Your task to perform on an android device: Do I have any events tomorrow? Image 0: 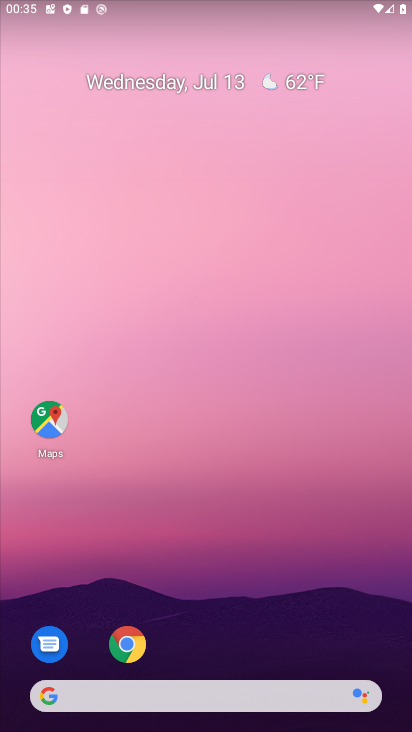
Step 0: drag from (235, 673) to (102, 215)
Your task to perform on an android device: Do I have any events tomorrow? Image 1: 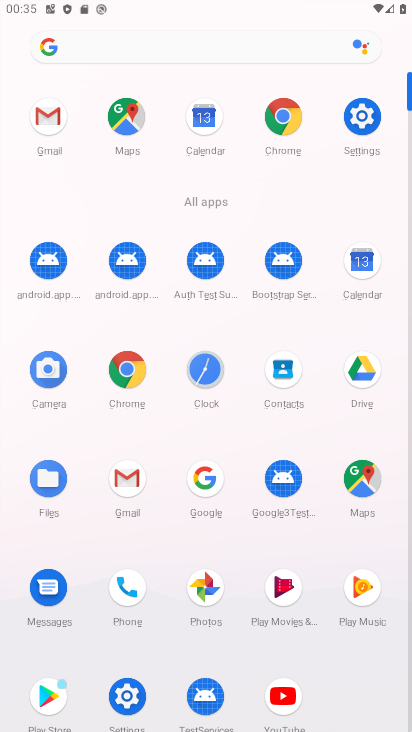
Step 1: click (364, 264)
Your task to perform on an android device: Do I have any events tomorrow? Image 2: 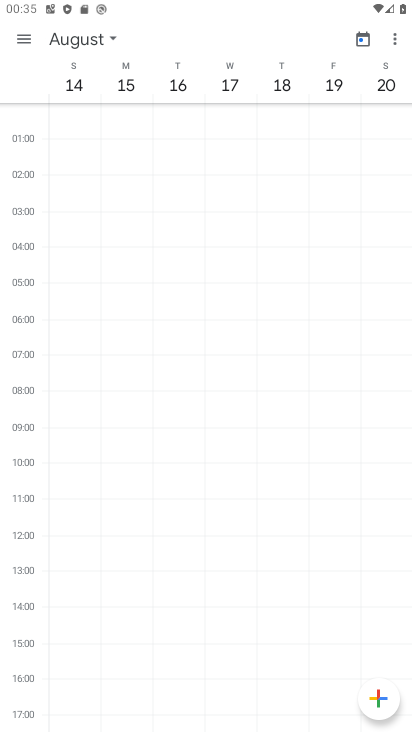
Step 2: click (362, 31)
Your task to perform on an android device: Do I have any events tomorrow? Image 3: 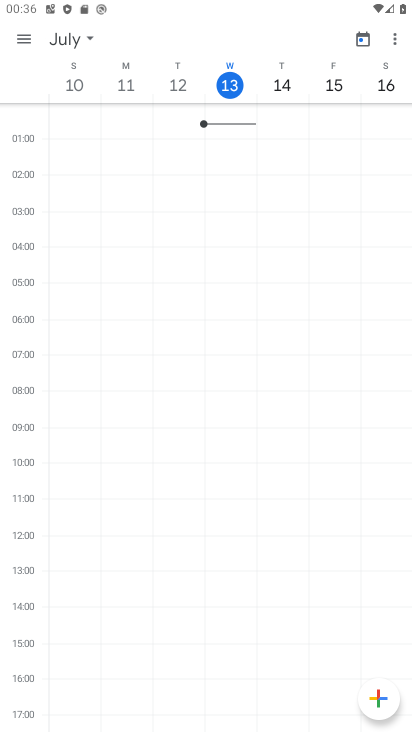
Step 3: click (279, 79)
Your task to perform on an android device: Do I have any events tomorrow? Image 4: 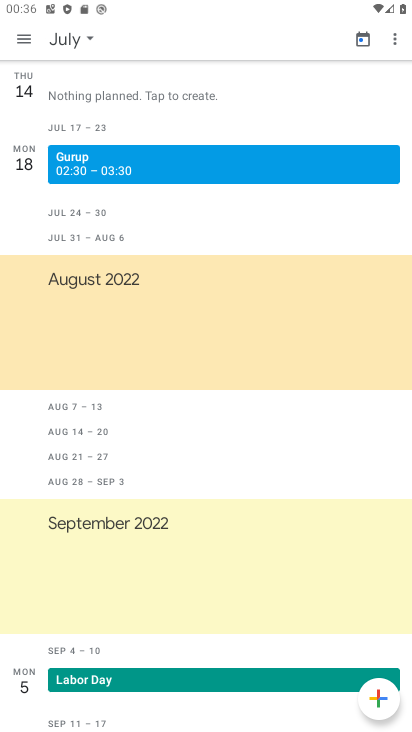
Step 4: click (364, 41)
Your task to perform on an android device: Do I have any events tomorrow? Image 5: 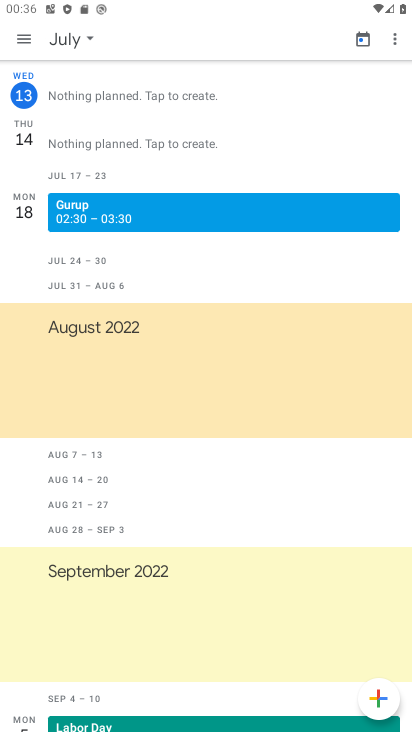
Step 5: click (19, 140)
Your task to perform on an android device: Do I have any events tomorrow? Image 6: 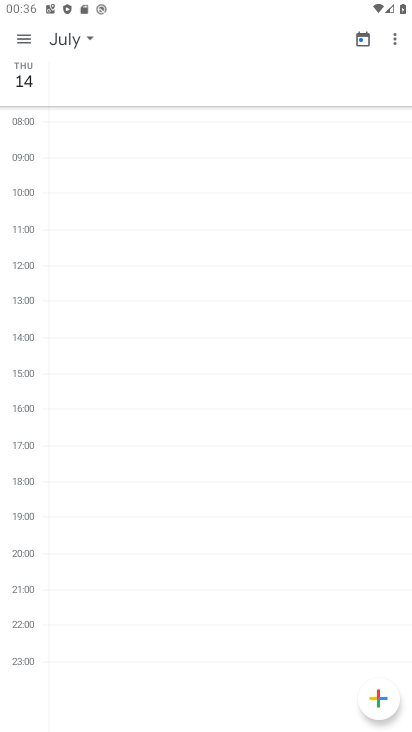
Step 6: task complete